Your task to perform on an android device: Go to ESPN.com Image 0: 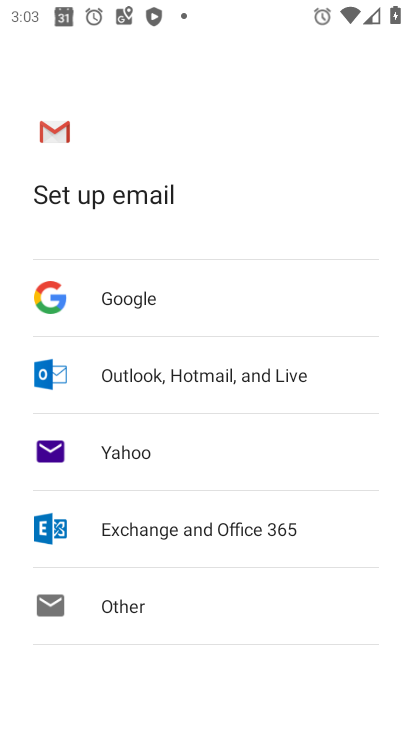
Step 0: click (191, 644)
Your task to perform on an android device: Go to ESPN.com Image 1: 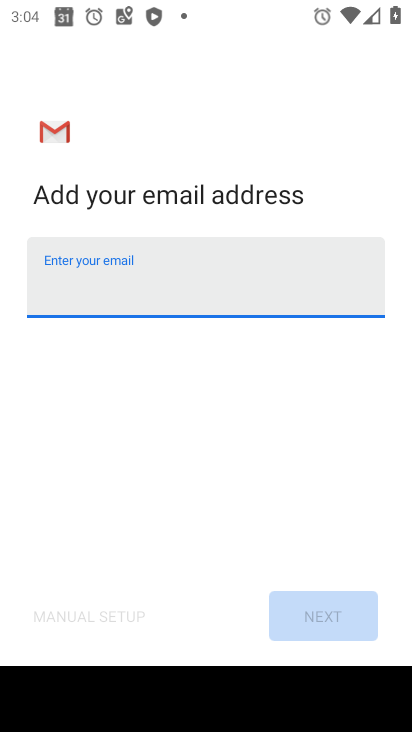
Step 1: press home button
Your task to perform on an android device: Go to ESPN.com Image 2: 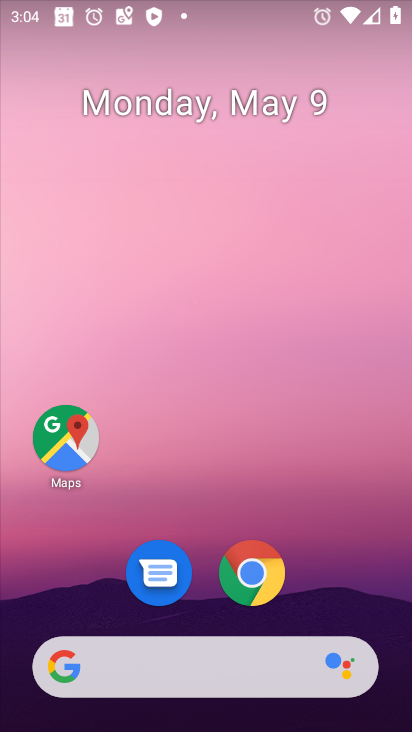
Step 2: drag from (153, 639) to (165, 318)
Your task to perform on an android device: Go to ESPN.com Image 3: 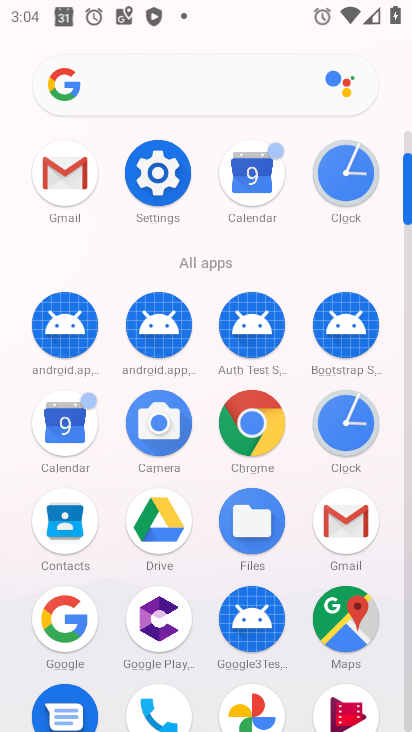
Step 3: click (235, 429)
Your task to perform on an android device: Go to ESPN.com Image 4: 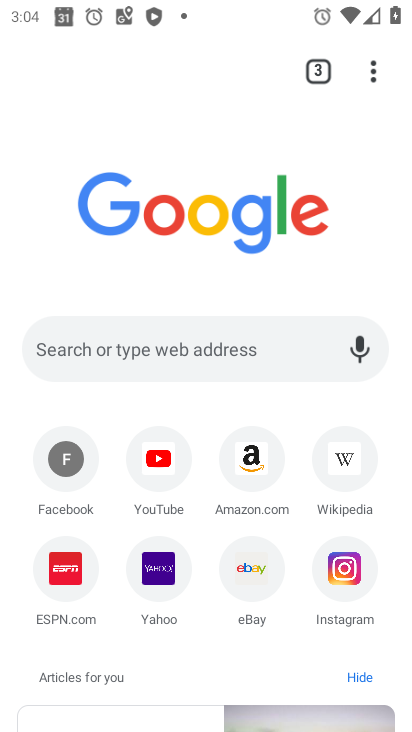
Step 4: click (71, 564)
Your task to perform on an android device: Go to ESPN.com Image 5: 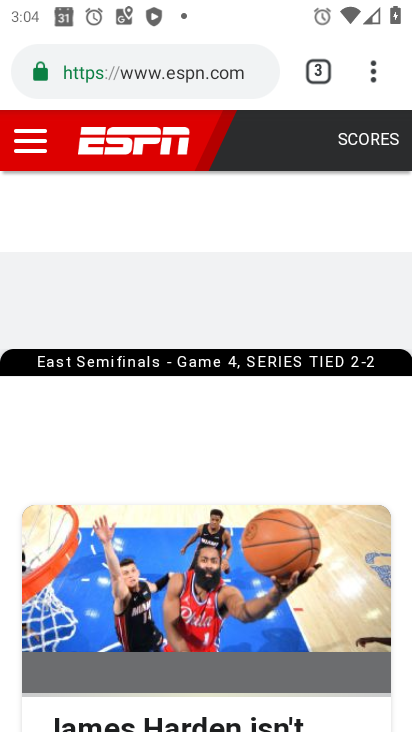
Step 5: task complete